Your task to perform on an android device: Search for seafood restaurants on Google Maps Image 0: 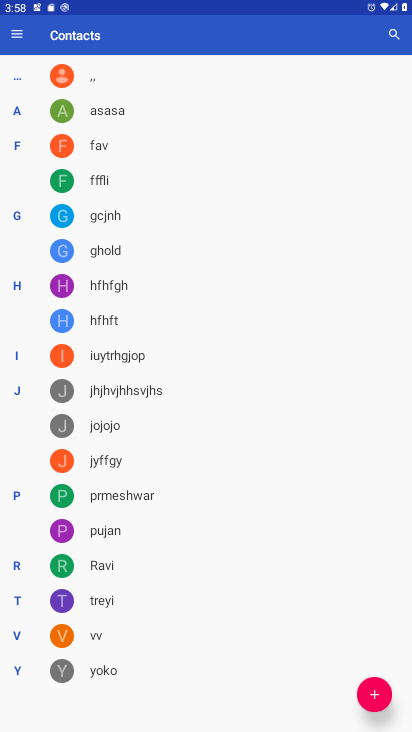
Step 0: press home button
Your task to perform on an android device: Search for seafood restaurants on Google Maps Image 1: 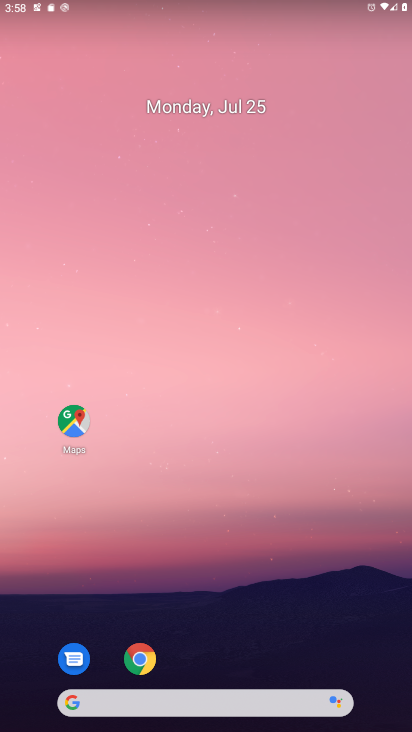
Step 1: click (68, 419)
Your task to perform on an android device: Search for seafood restaurants on Google Maps Image 2: 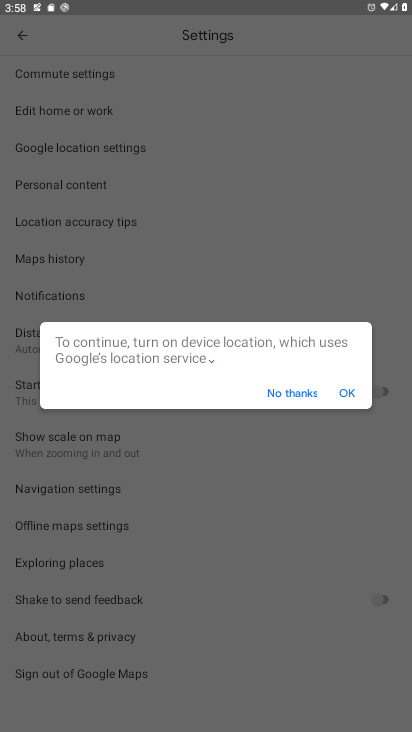
Step 2: click (15, 38)
Your task to perform on an android device: Search for seafood restaurants on Google Maps Image 3: 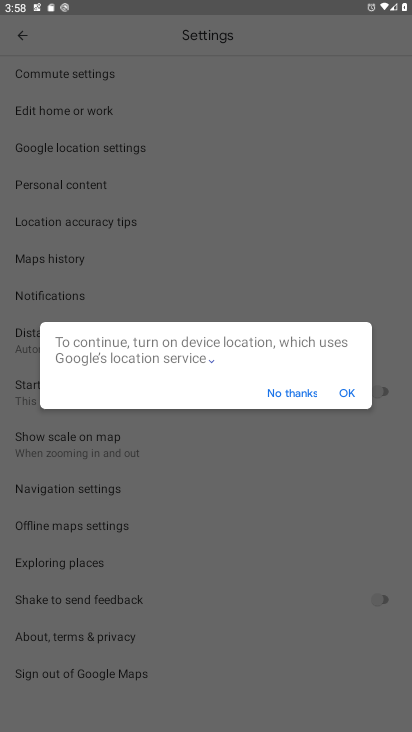
Step 3: click (291, 390)
Your task to perform on an android device: Search for seafood restaurants on Google Maps Image 4: 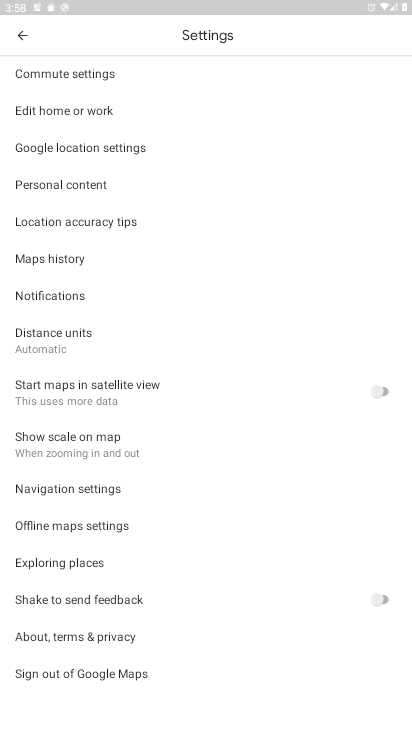
Step 4: click (22, 33)
Your task to perform on an android device: Search for seafood restaurants on Google Maps Image 5: 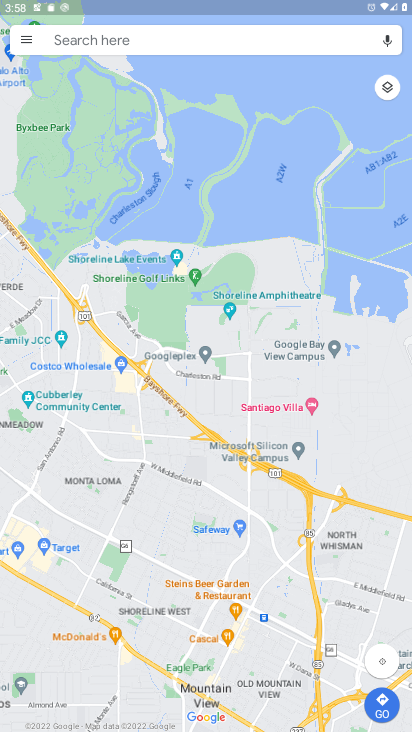
Step 5: click (105, 35)
Your task to perform on an android device: Search for seafood restaurants on Google Maps Image 6: 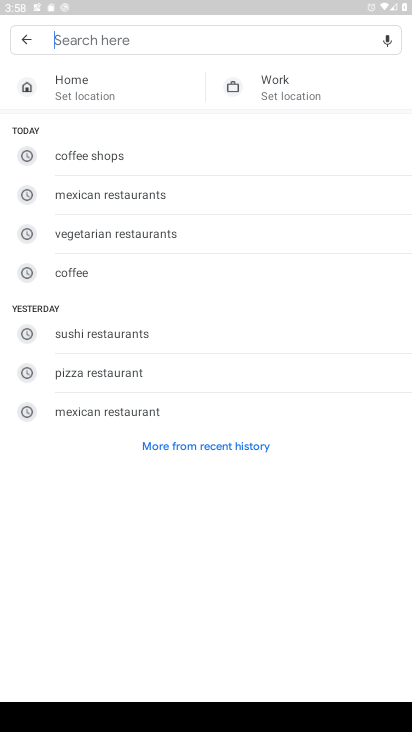
Step 6: type "seafood restaurats"
Your task to perform on an android device: Search for seafood restaurants on Google Maps Image 7: 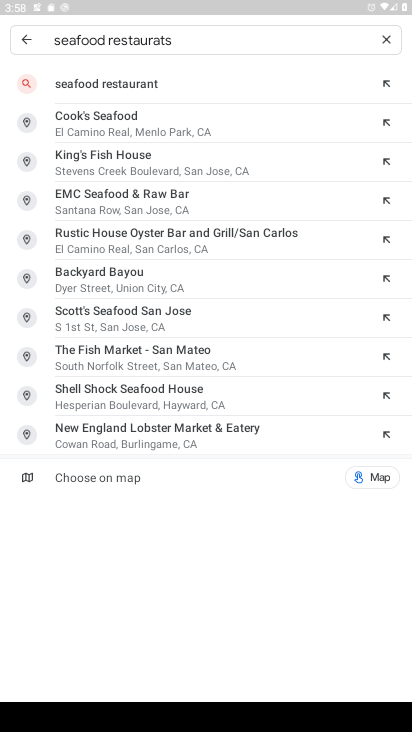
Step 7: click (130, 79)
Your task to perform on an android device: Search for seafood restaurants on Google Maps Image 8: 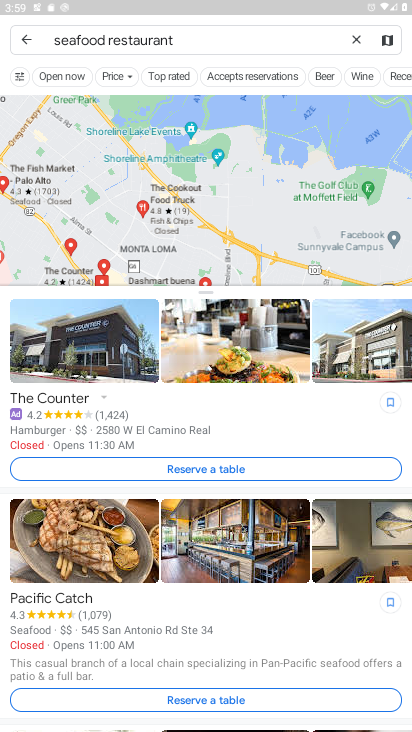
Step 8: task complete